Your task to perform on an android device: turn off improve location accuracy Image 0: 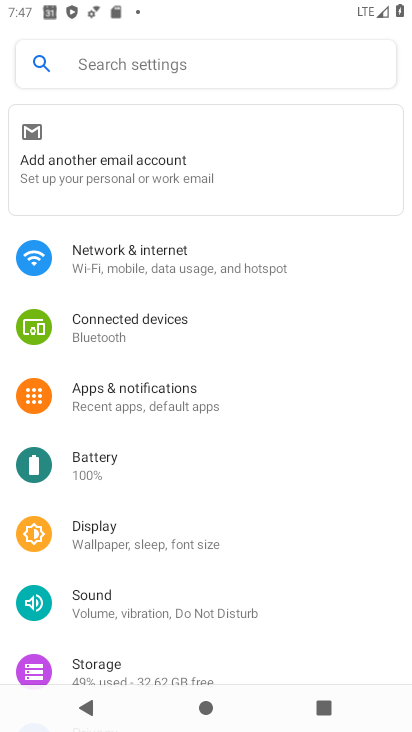
Step 0: drag from (270, 353) to (266, 132)
Your task to perform on an android device: turn off improve location accuracy Image 1: 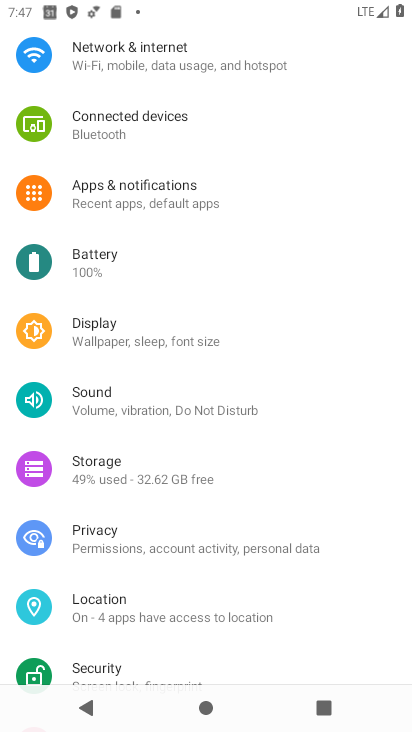
Step 1: click (232, 605)
Your task to perform on an android device: turn off improve location accuracy Image 2: 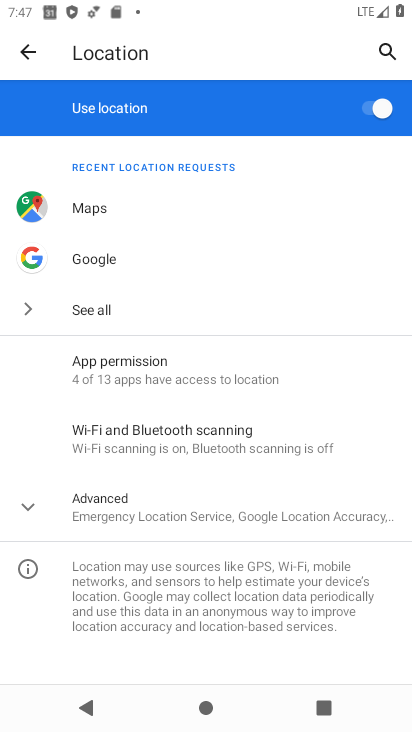
Step 2: click (21, 501)
Your task to perform on an android device: turn off improve location accuracy Image 3: 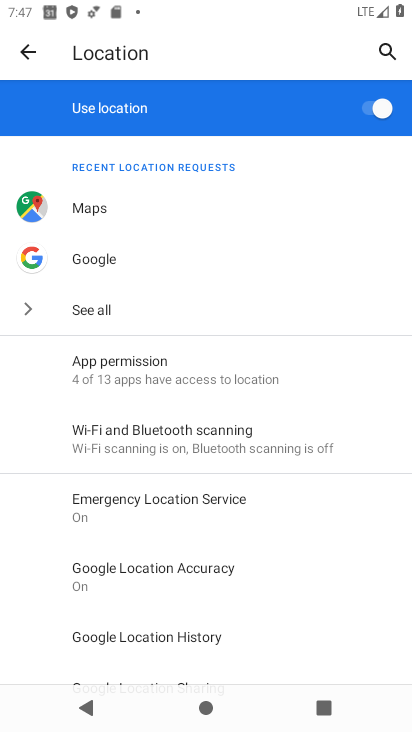
Step 3: click (125, 568)
Your task to perform on an android device: turn off improve location accuracy Image 4: 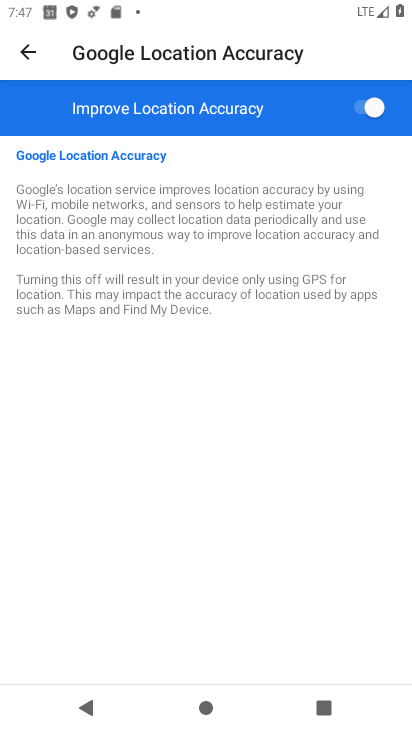
Step 4: click (359, 105)
Your task to perform on an android device: turn off improve location accuracy Image 5: 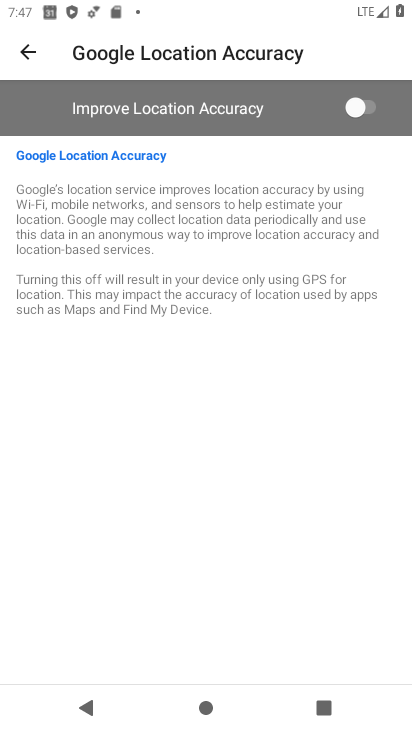
Step 5: task complete